Your task to perform on an android device: Turn on the flashlight Image 0: 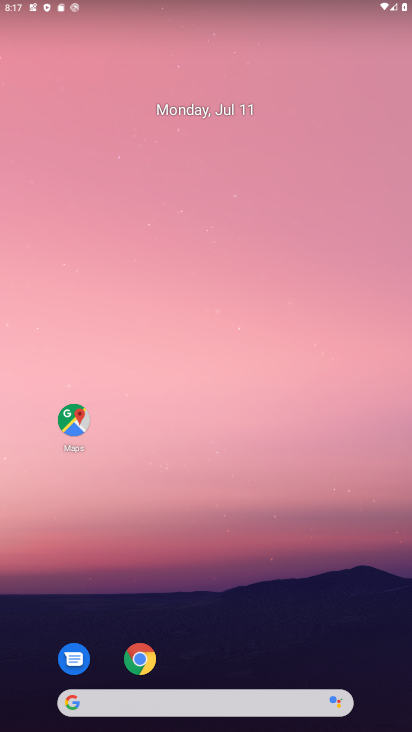
Step 0: click (155, 356)
Your task to perform on an android device: Turn on the flashlight Image 1: 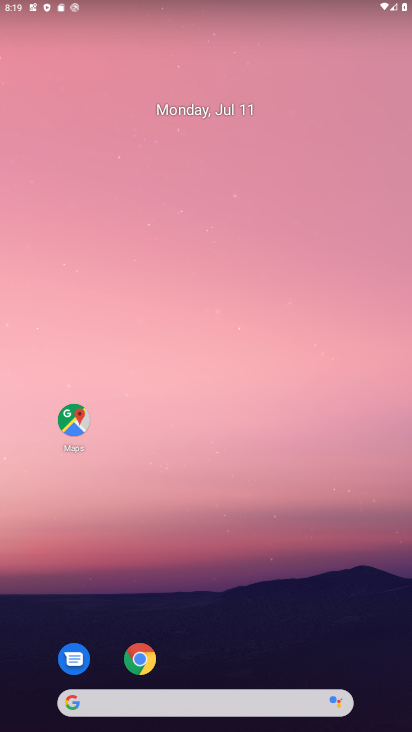
Step 1: drag from (192, 628) to (381, 47)
Your task to perform on an android device: Turn on the flashlight Image 2: 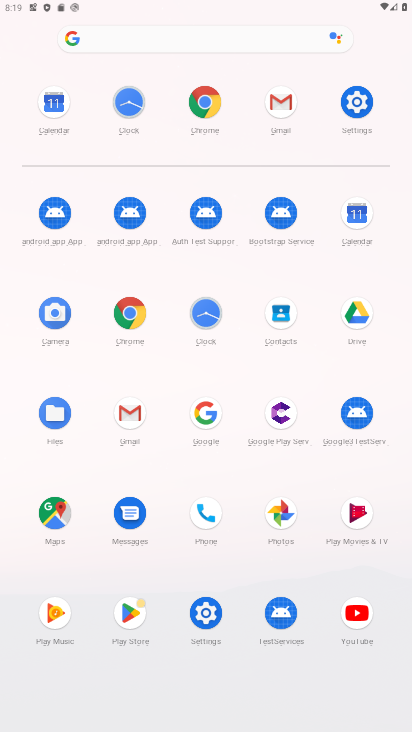
Step 2: click (208, 621)
Your task to perform on an android device: Turn on the flashlight Image 3: 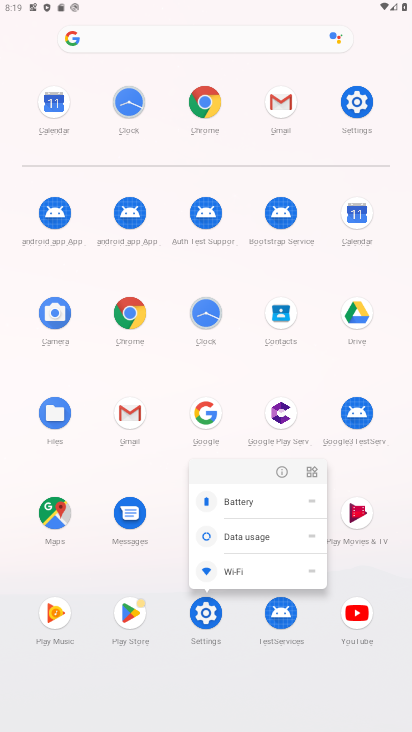
Step 3: click (279, 468)
Your task to perform on an android device: Turn on the flashlight Image 4: 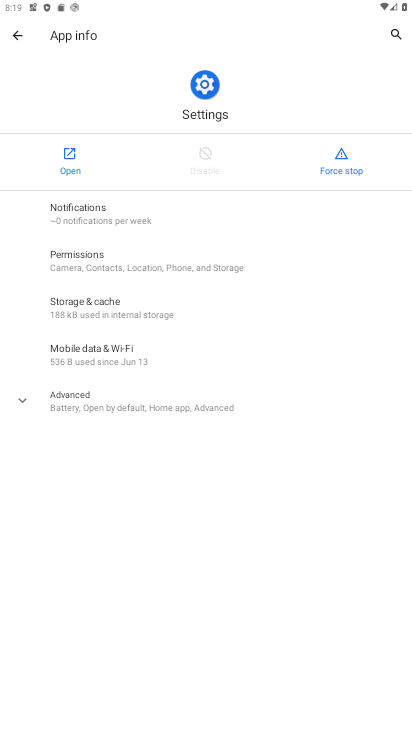
Step 4: click (87, 171)
Your task to perform on an android device: Turn on the flashlight Image 5: 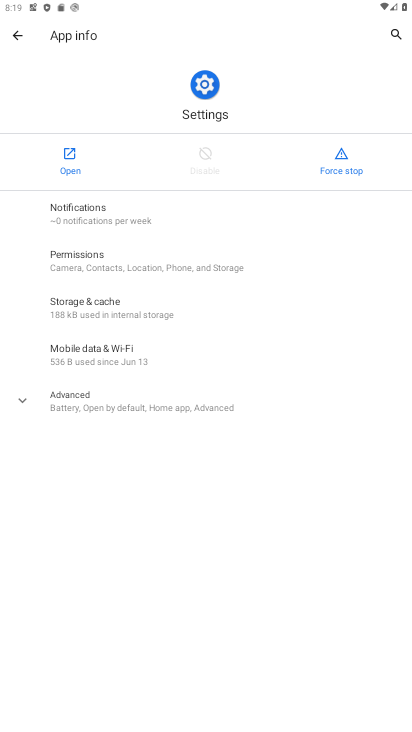
Step 5: click (87, 171)
Your task to perform on an android device: Turn on the flashlight Image 6: 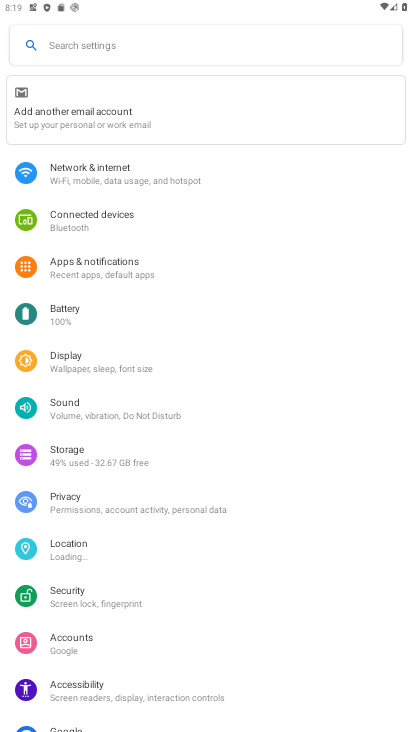
Step 6: click (93, 49)
Your task to perform on an android device: Turn on the flashlight Image 7: 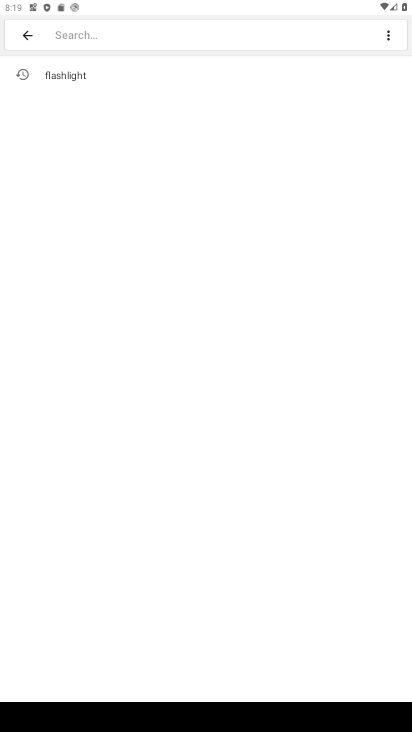
Step 7: click (67, 42)
Your task to perform on an android device: Turn on the flashlight Image 8: 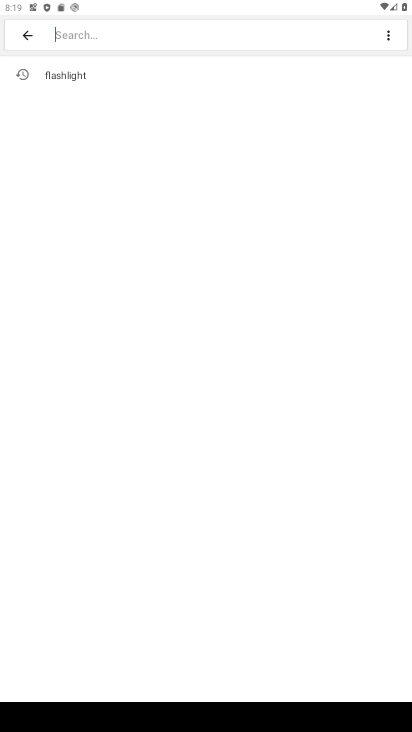
Step 8: click (77, 74)
Your task to perform on an android device: Turn on the flashlight Image 9: 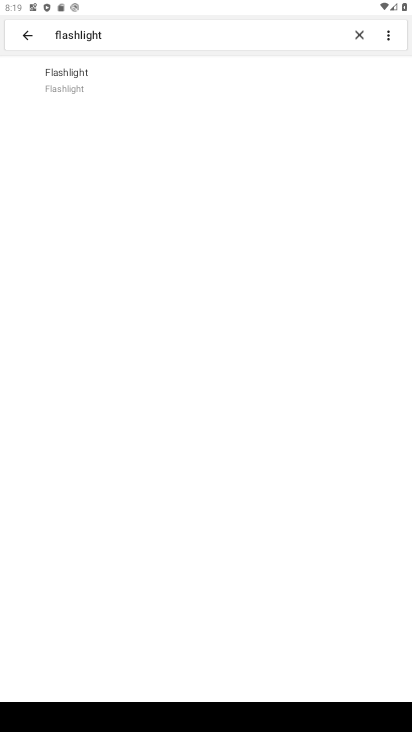
Step 9: click (80, 72)
Your task to perform on an android device: Turn on the flashlight Image 10: 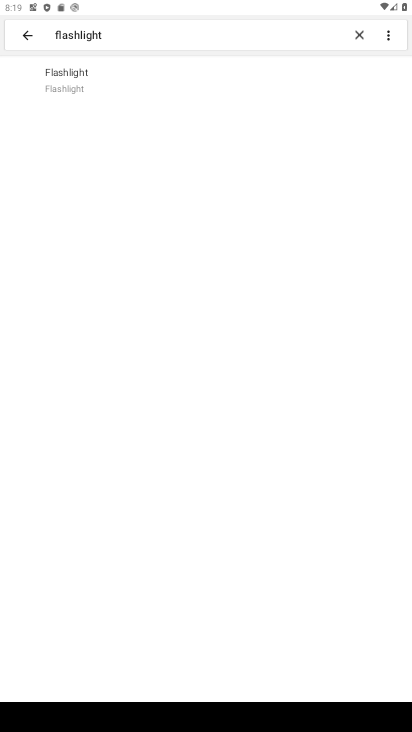
Step 10: task complete